Your task to perform on an android device: Open Google Maps and go to "Timeline" Image 0: 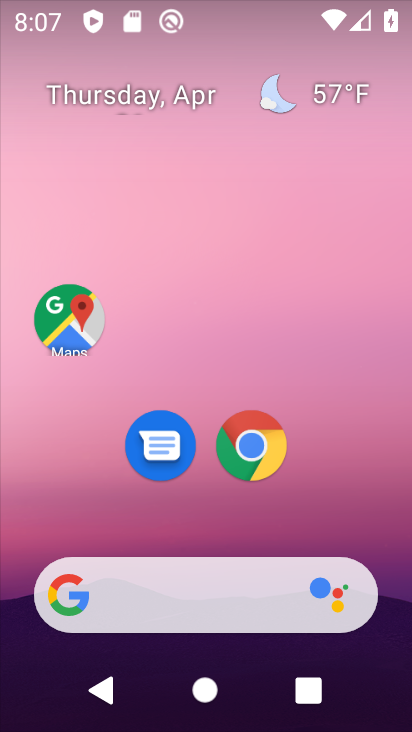
Step 0: click (72, 319)
Your task to perform on an android device: Open Google Maps and go to "Timeline" Image 1: 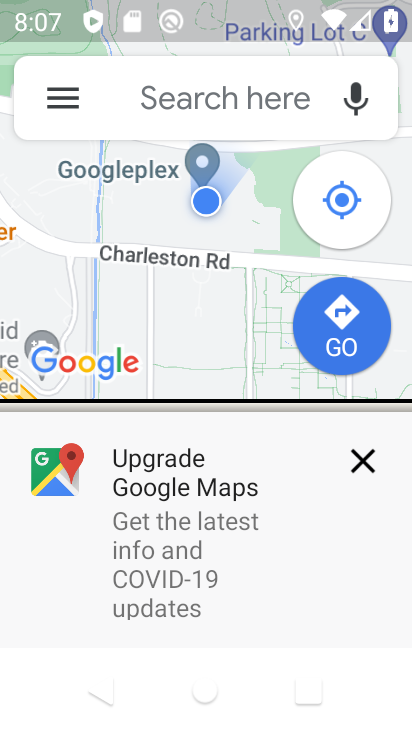
Step 1: click (66, 102)
Your task to perform on an android device: Open Google Maps and go to "Timeline" Image 2: 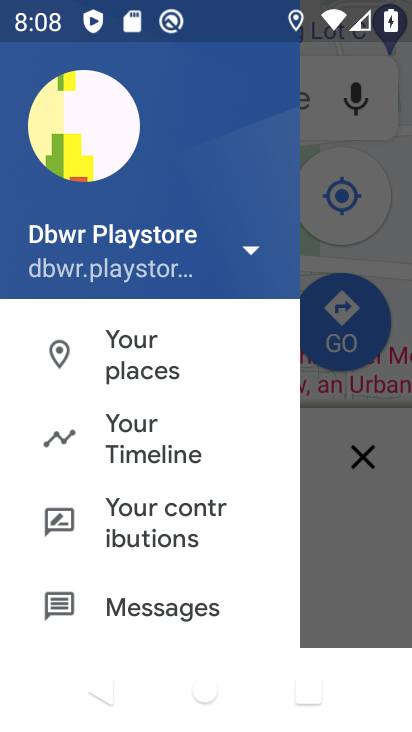
Step 2: click (121, 449)
Your task to perform on an android device: Open Google Maps and go to "Timeline" Image 3: 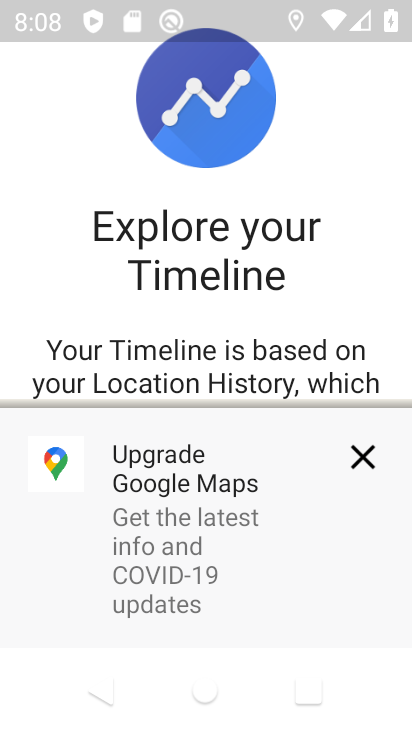
Step 3: click (361, 462)
Your task to perform on an android device: Open Google Maps and go to "Timeline" Image 4: 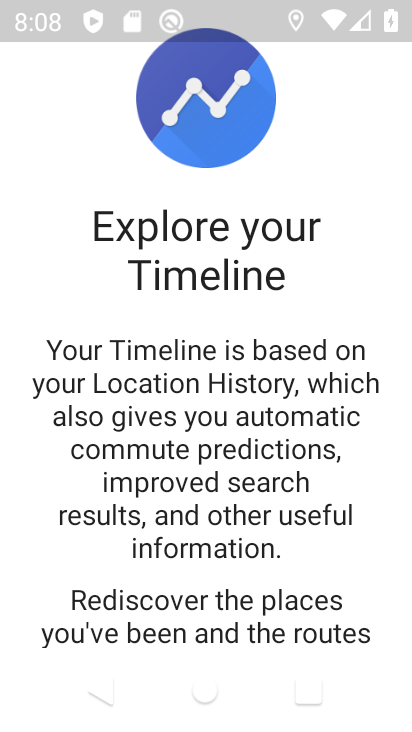
Step 4: drag from (241, 496) to (211, 117)
Your task to perform on an android device: Open Google Maps and go to "Timeline" Image 5: 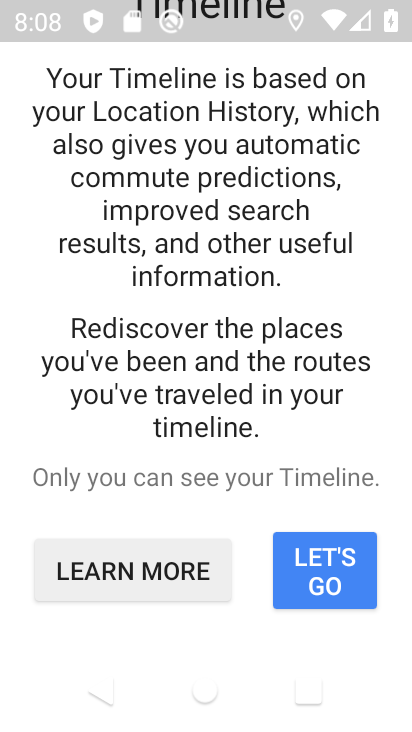
Step 5: click (325, 584)
Your task to perform on an android device: Open Google Maps and go to "Timeline" Image 6: 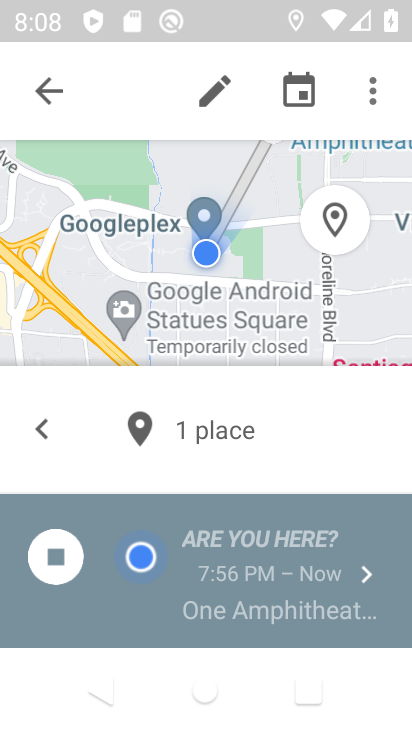
Step 6: task complete